Your task to perform on an android device: star an email in the gmail app Image 0: 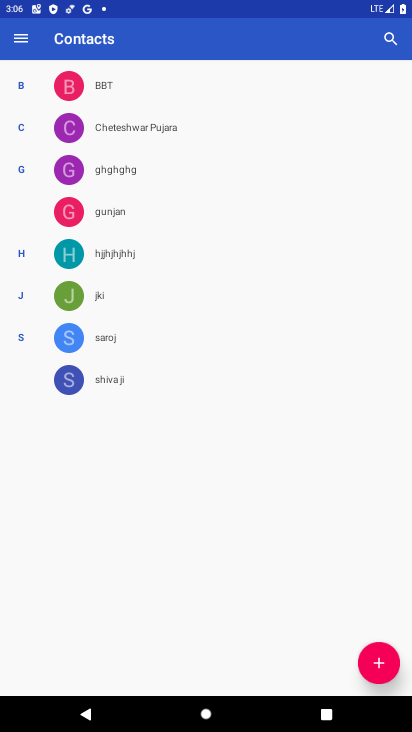
Step 0: press home button
Your task to perform on an android device: star an email in the gmail app Image 1: 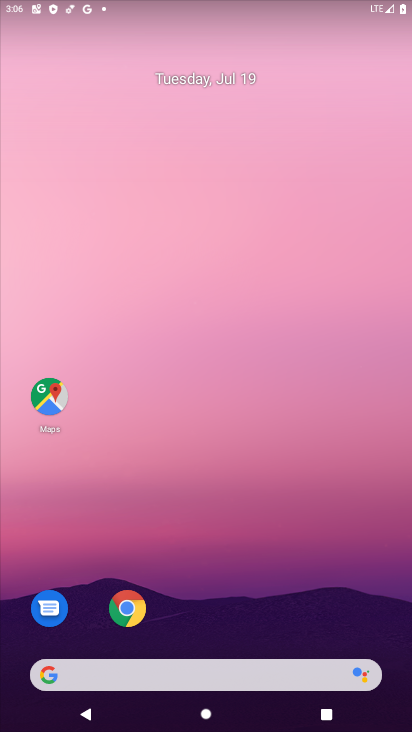
Step 1: drag from (243, 395) to (227, 34)
Your task to perform on an android device: star an email in the gmail app Image 2: 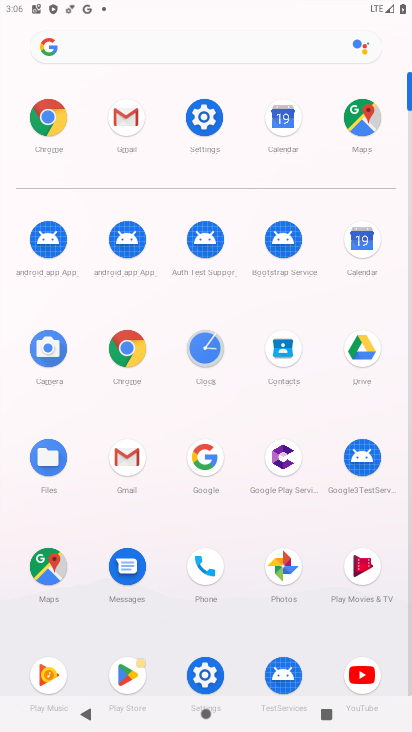
Step 2: click (125, 106)
Your task to perform on an android device: star an email in the gmail app Image 3: 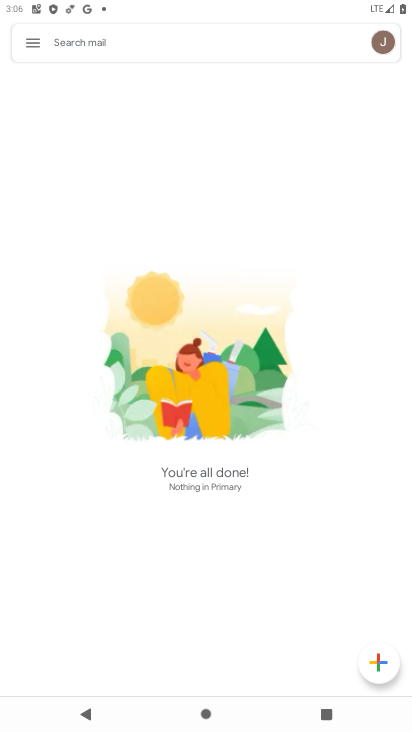
Step 3: click (35, 37)
Your task to perform on an android device: star an email in the gmail app Image 4: 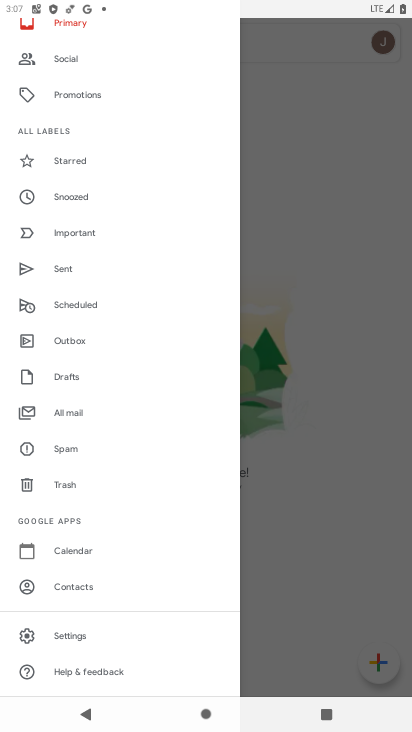
Step 4: click (79, 410)
Your task to perform on an android device: star an email in the gmail app Image 5: 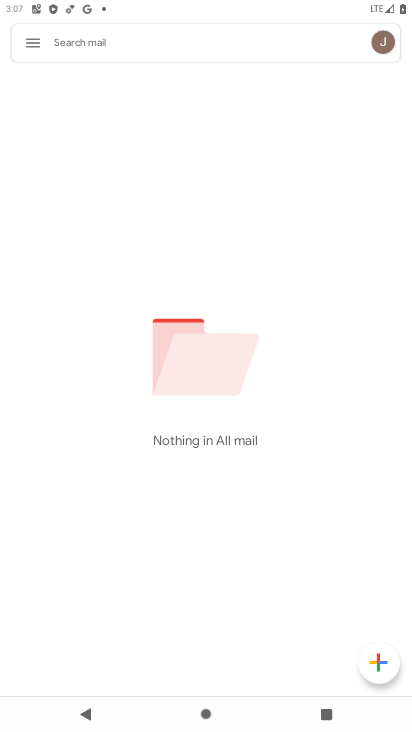
Step 5: task complete